Your task to perform on an android device: Open Amazon Image 0: 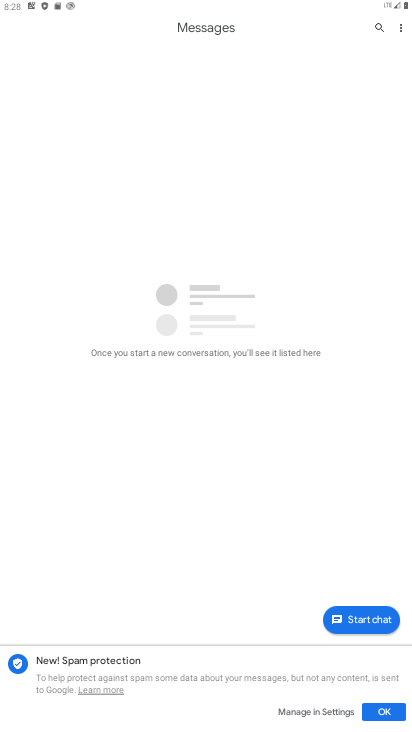
Step 0: press home button
Your task to perform on an android device: Open Amazon Image 1: 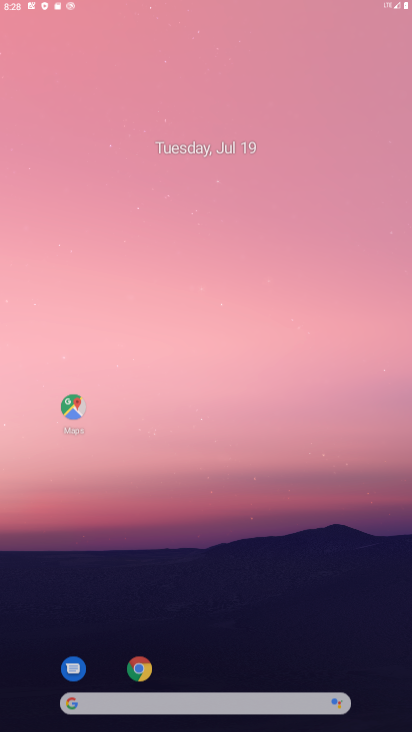
Step 1: drag from (373, 645) to (187, 11)
Your task to perform on an android device: Open Amazon Image 2: 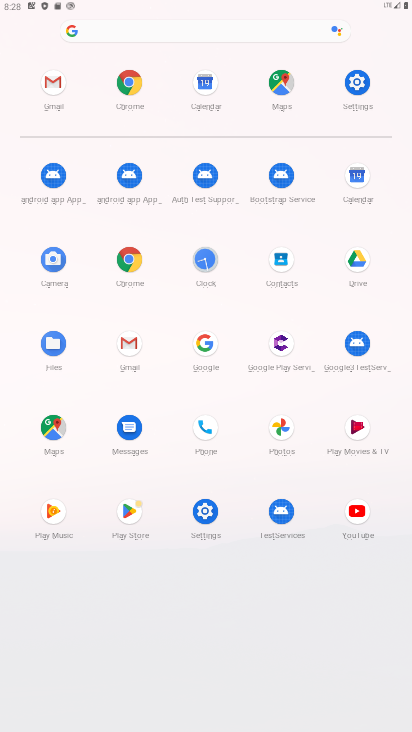
Step 2: click (215, 342)
Your task to perform on an android device: Open Amazon Image 3: 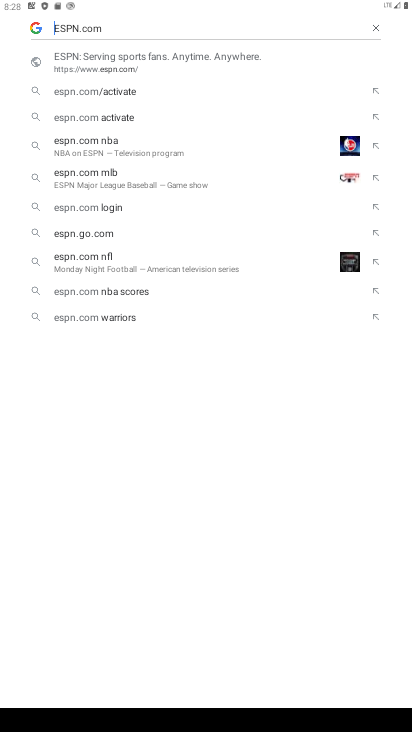
Step 3: click (378, 26)
Your task to perform on an android device: Open Amazon Image 4: 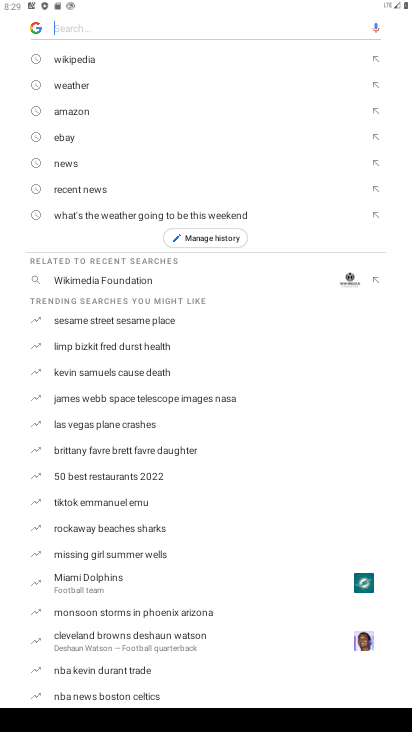
Step 4: click (79, 109)
Your task to perform on an android device: Open Amazon Image 5: 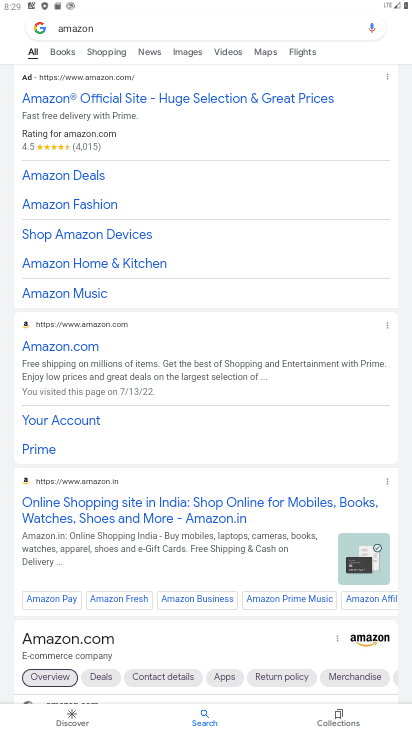
Step 5: task complete